Your task to perform on an android device: Open wifi settings Image 0: 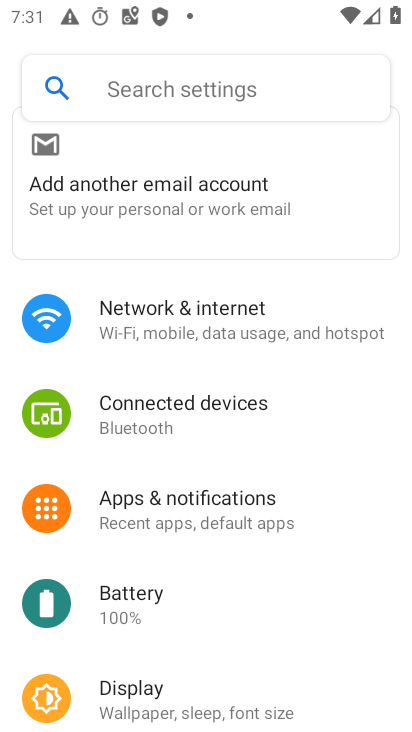
Step 0: click (193, 332)
Your task to perform on an android device: Open wifi settings Image 1: 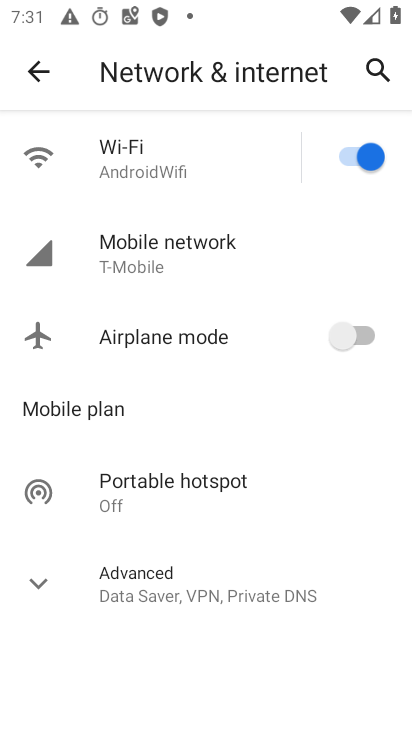
Step 1: click (134, 156)
Your task to perform on an android device: Open wifi settings Image 2: 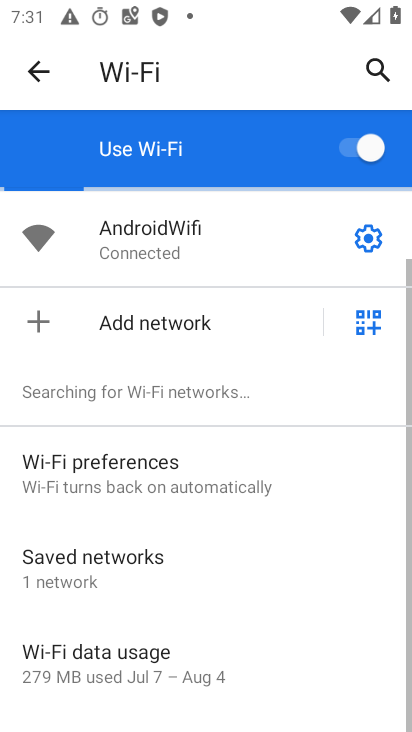
Step 2: click (133, 244)
Your task to perform on an android device: Open wifi settings Image 3: 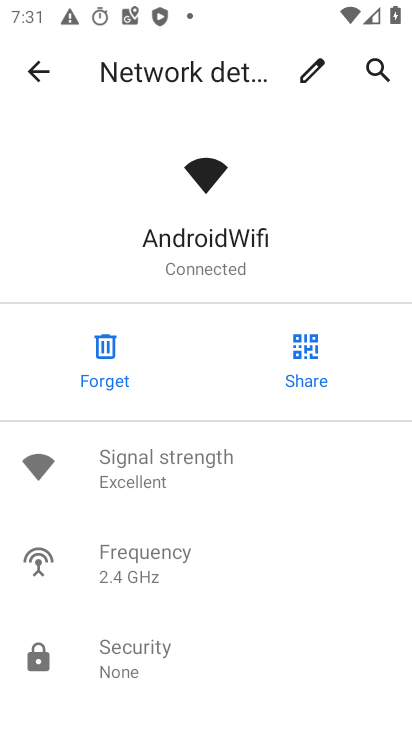
Step 3: task complete